Your task to perform on an android device: open app "Firefox Browser" Image 0: 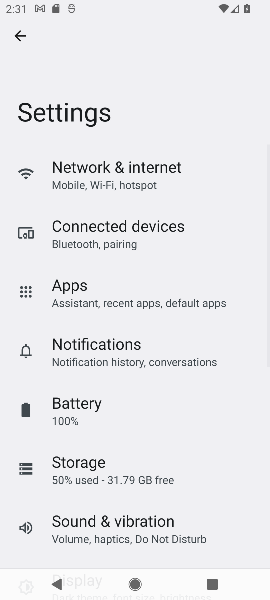
Step 0: press home button
Your task to perform on an android device: open app "Firefox Browser" Image 1: 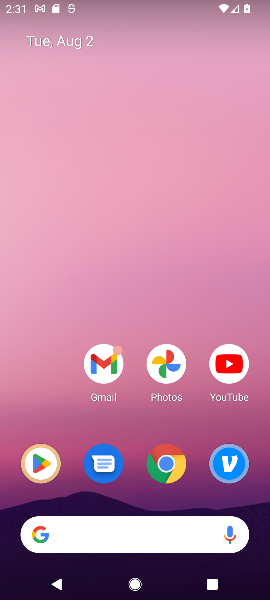
Step 1: click (39, 456)
Your task to perform on an android device: open app "Firefox Browser" Image 2: 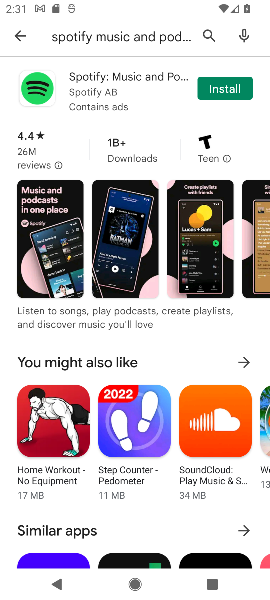
Step 2: click (205, 27)
Your task to perform on an android device: open app "Firefox Browser" Image 3: 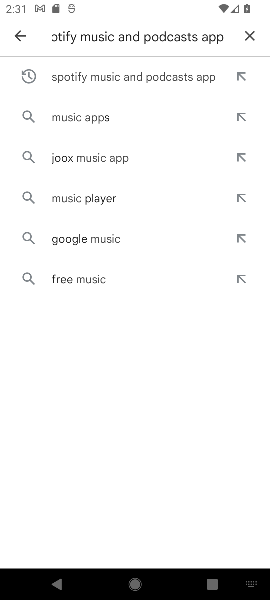
Step 3: click (245, 35)
Your task to perform on an android device: open app "Firefox Browser" Image 4: 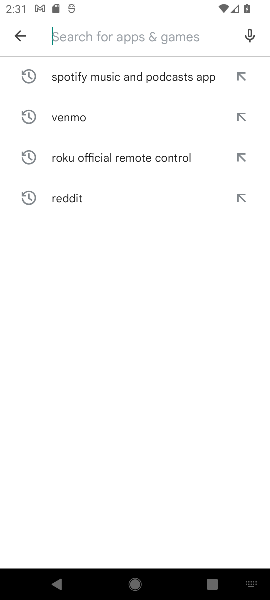
Step 4: type "Firefox Browser"
Your task to perform on an android device: open app "Firefox Browser" Image 5: 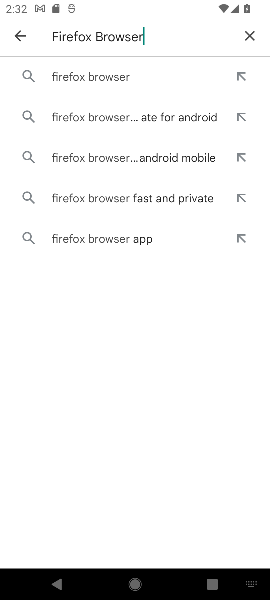
Step 5: click (110, 75)
Your task to perform on an android device: open app "Firefox Browser" Image 6: 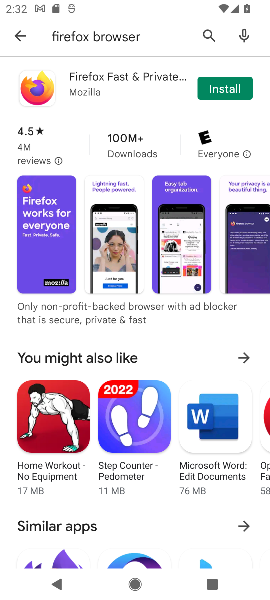
Step 6: task complete